Your task to perform on an android device: Do I have any events today? Image 0: 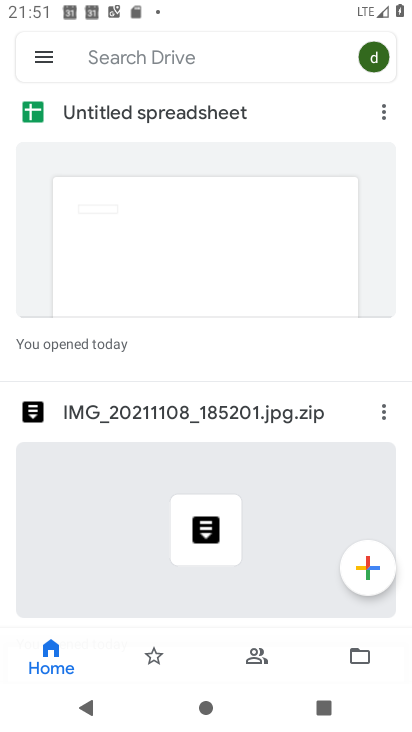
Step 0: press home button
Your task to perform on an android device: Do I have any events today? Image 1: 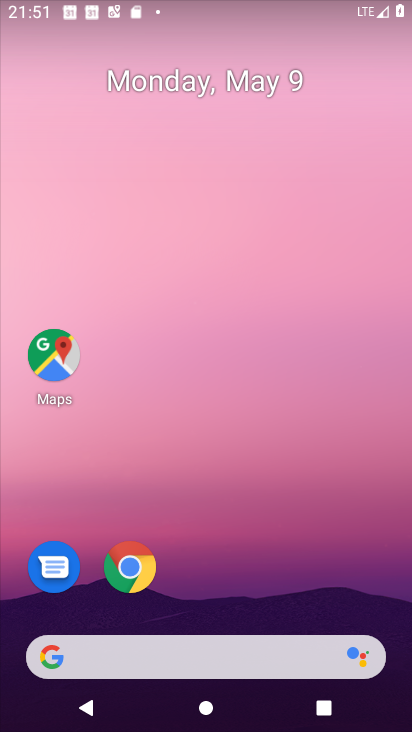
Step 1: drag from (212, 527) to (219, 141)
Your task to perform on an android device: Do I have any events today? Image 2: 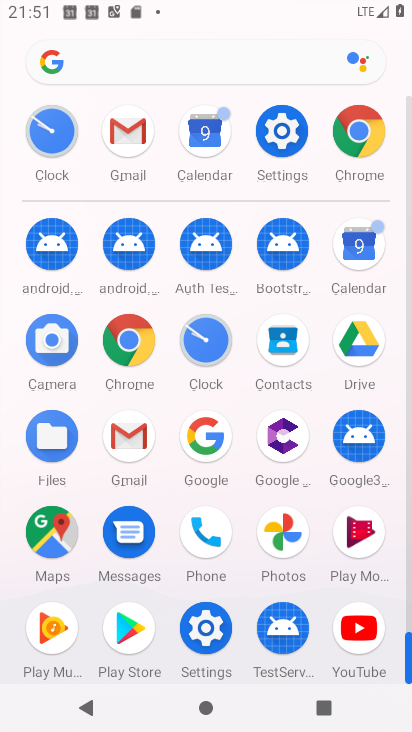
Step 2: click (345, 236)
Your task to perform on an android device: Do I have any events today? Image 3: 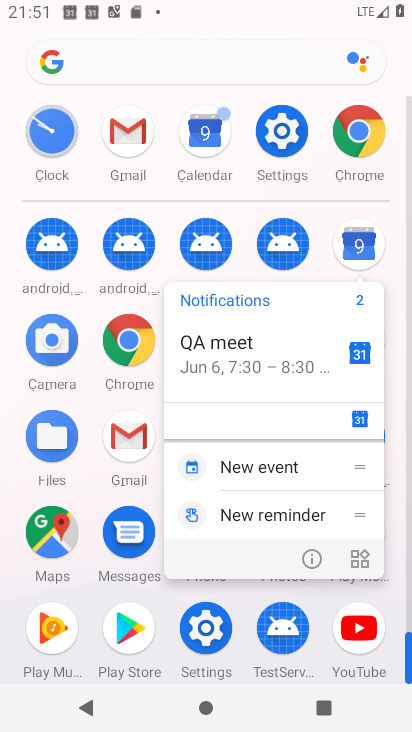
Step 3: click (310, 551)
Your task to perform on an android device: Do I have any events today? Image 4: 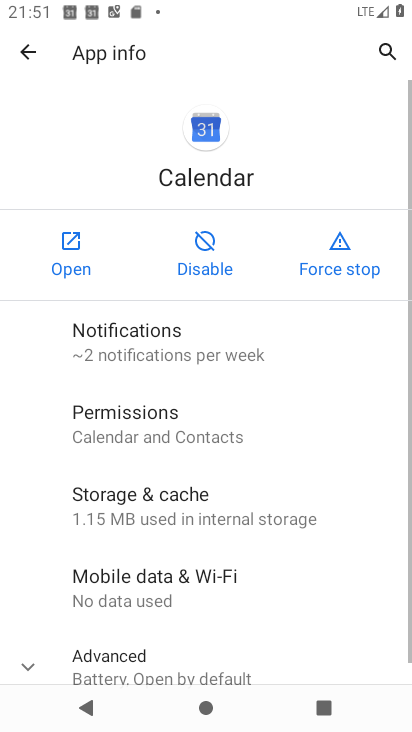
Step 4: click (81, 272)
Your task to perform on an android device: Do I have any events today? Image 5: 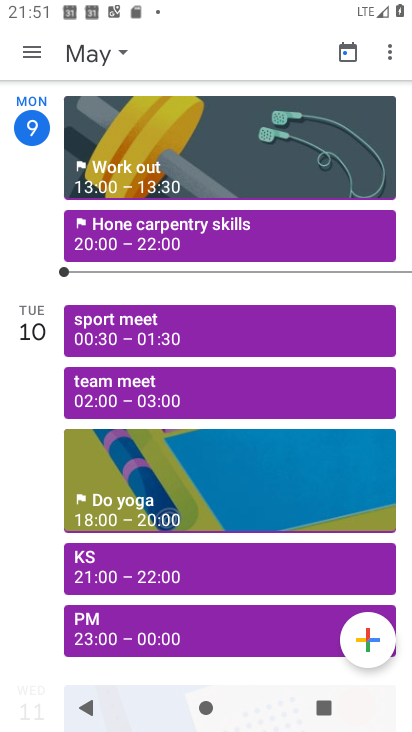
Step 5: drag from (260, 442) to (269, 307)
Your task to perform on an android device: Do I have any events today? Image 6: 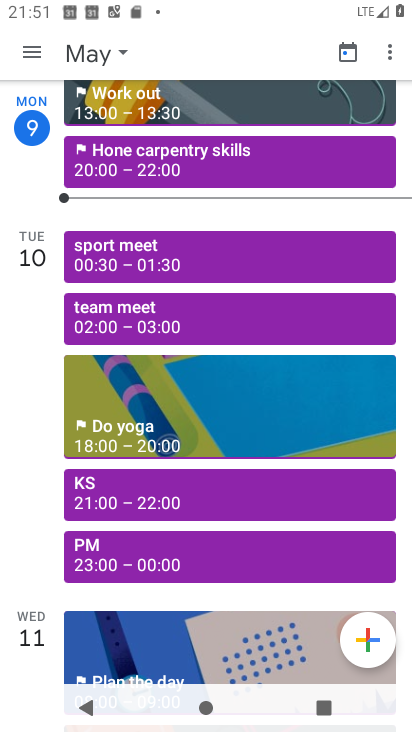
Step 6: drag from (219, 165) to (231, 630)
Your task to perform on an android device: Do I have any events today? Image 7: 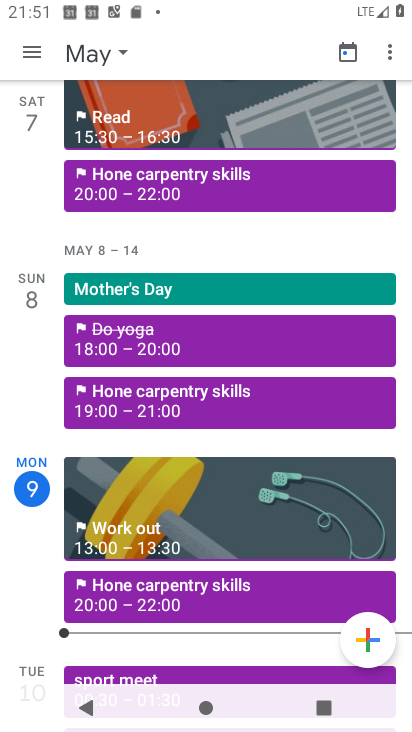
Step 7: click (97, 52)
Your task to perform on an android device: Do I have any events today? Image 8: 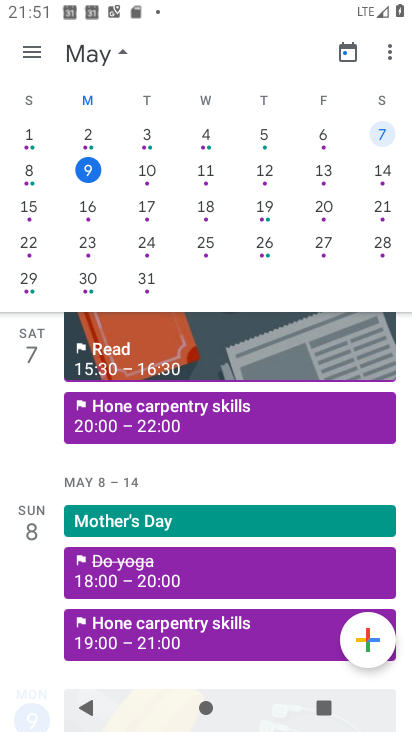
Step 8: click (91, 168)
Your task to perform on an android device: Do I have any events today? Image 9: 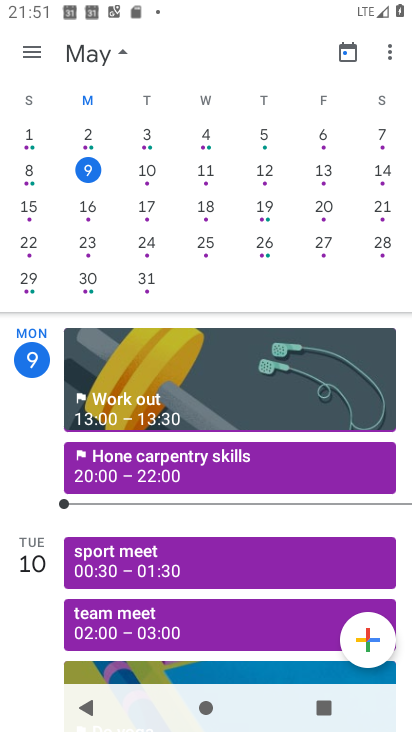
Step 9: task complete